Your task to perform on an android device: Open Chrome and go to the settings page Image 0: 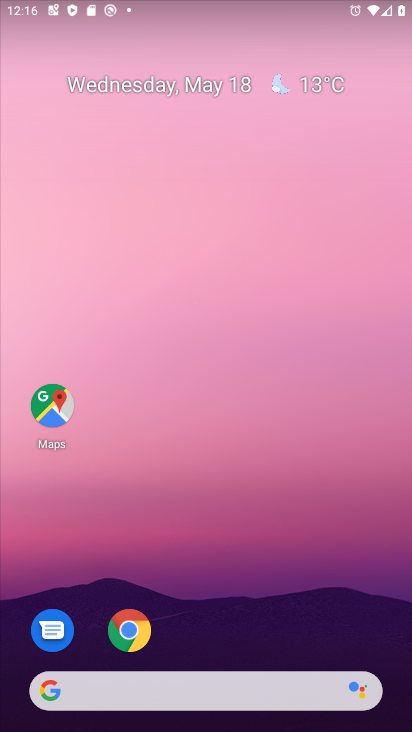
Step 0: click (131, 633)
Your task to perform on an android device: Open Chrome and go to the settings page Image 1: 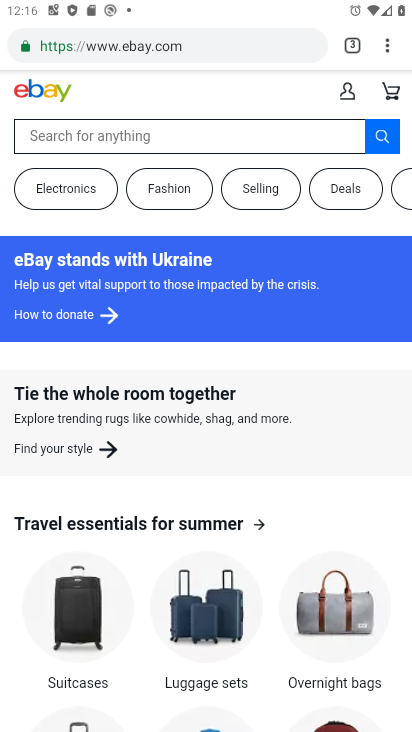
Step 1: click (388, 49)
Your task to perform on an android device: Open Chrome and go to the settings page Image 2: 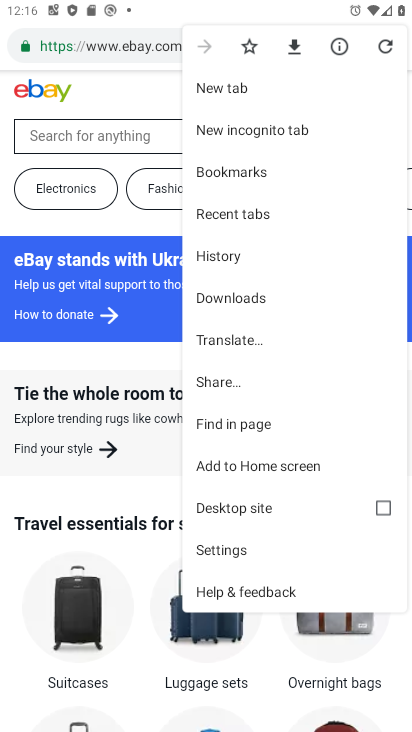
Step 2: click (225, 546)
Your task to perform on an android device: Open Chrome and go to the settings page Image 3: 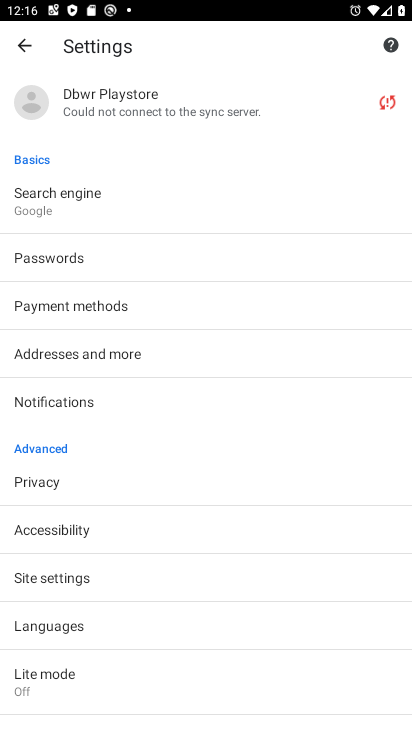
Step 3: task complete